Your task to perform on an android device: Open Youtube and go to the subscriptions tab Image 0: 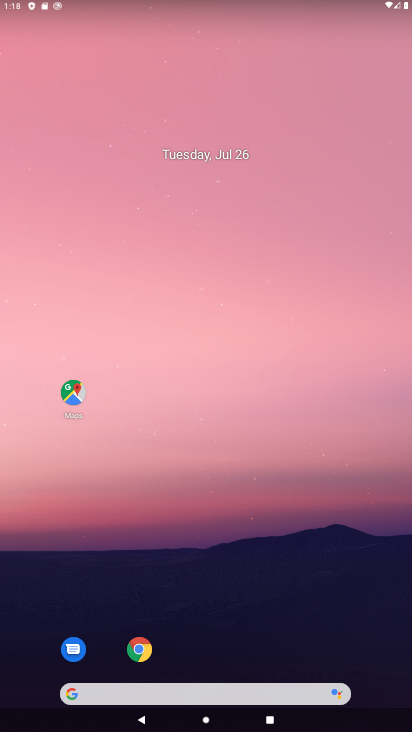
Step 0: drag from (190, 455) to (190, 106)
Your task to perform on an android device: Open Youtube and go to the subscriptions tab Image 1: 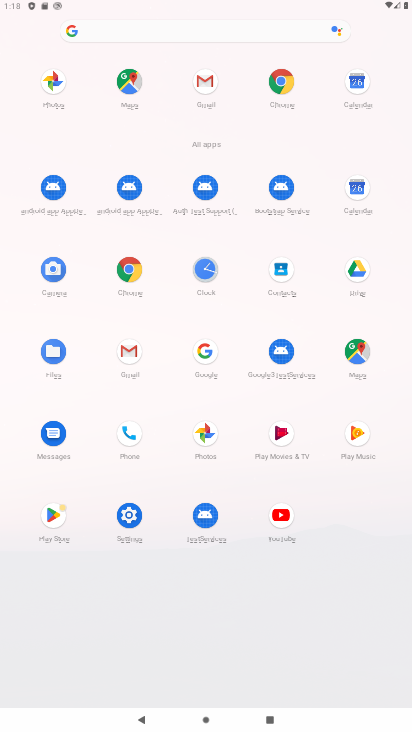
Step 1: click (271, 529)
Your task to perform on an android device: Open Youtube and go to the subscriptions tab Image 2: 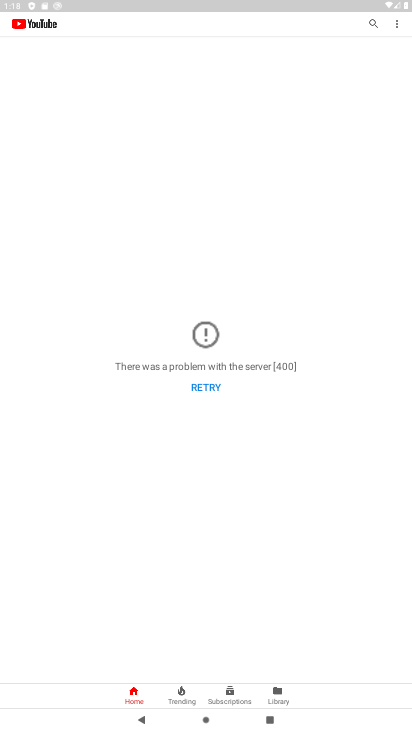
Step 2: click (227, 688)
Your task to perform on an android device: Open Youtube and go to the subscriptions tab Image 3: 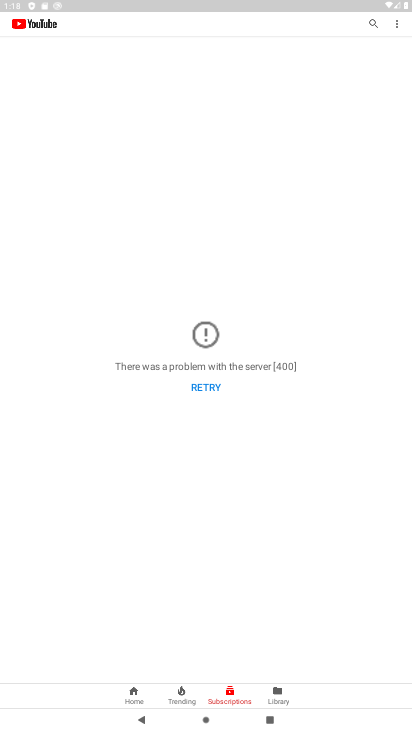
Step 3: task complete